Your task to perform on an android device: What's the weather today? Image 0: 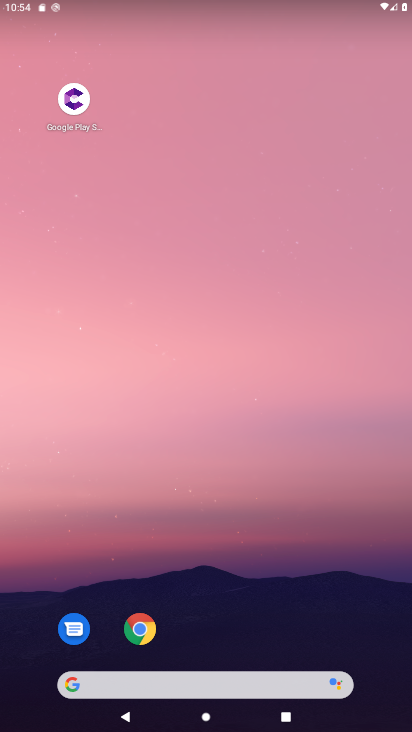
Step 0: drag from (248, 623) to (233, 38)
Your task to perform on an android device: What's the weather today? Image 1: 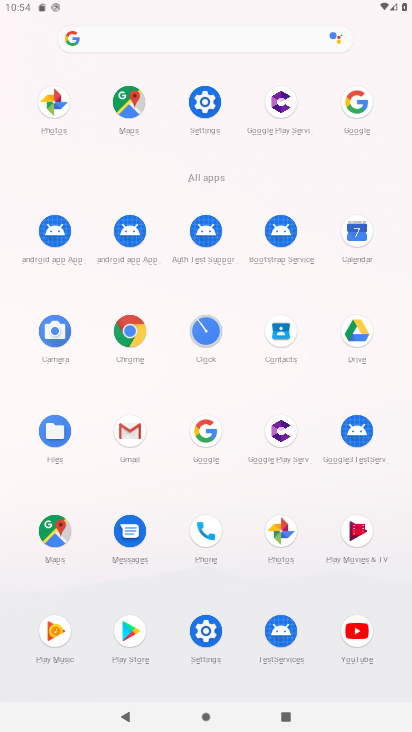
Step 1: click (204, 431)
Your task to perform on an android device: What's the weather today? Image 2: 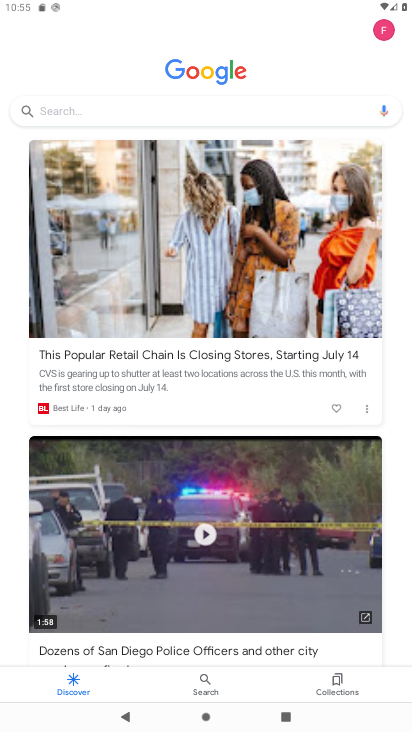
Step 2: click (229, 99)
Your task to perform on an android device: What's the weather today? Image 3: 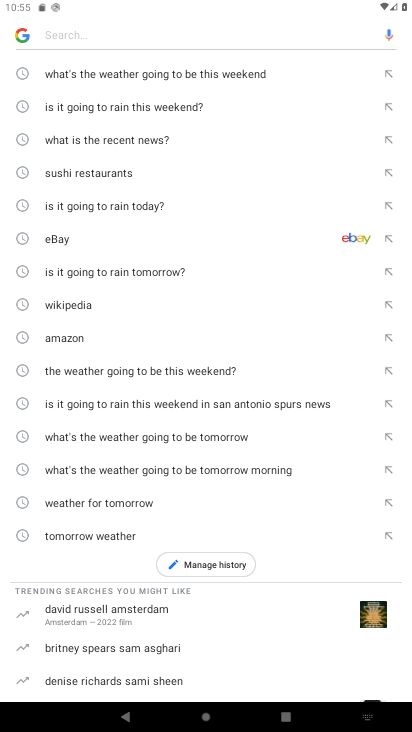
Step 3: type "weather today"
Your task to perform on an android device: What's the weather today? Image 4: 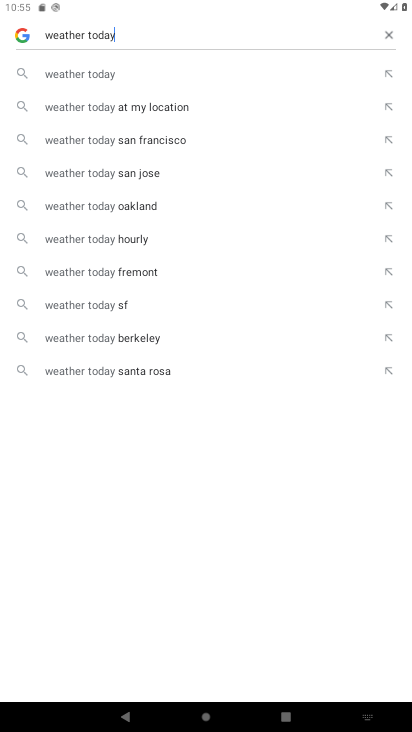
Step 4: click (84, 73)
Your task to perform on an android device: What's the weather today? Image 5: 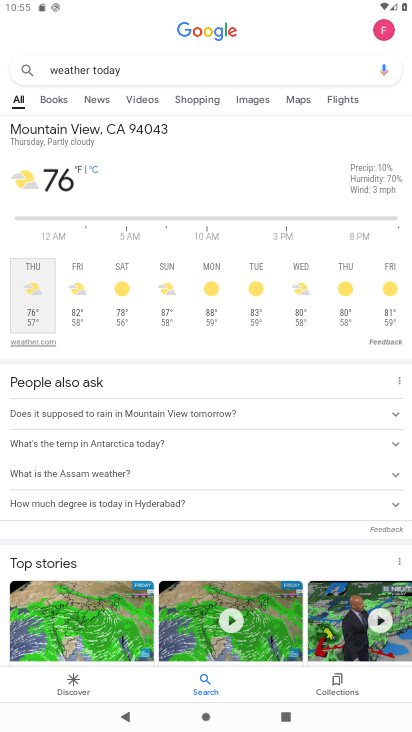
Step 5: task complete